Your task to perform on an android device: turn on the 12-hour format for clock Image 0: 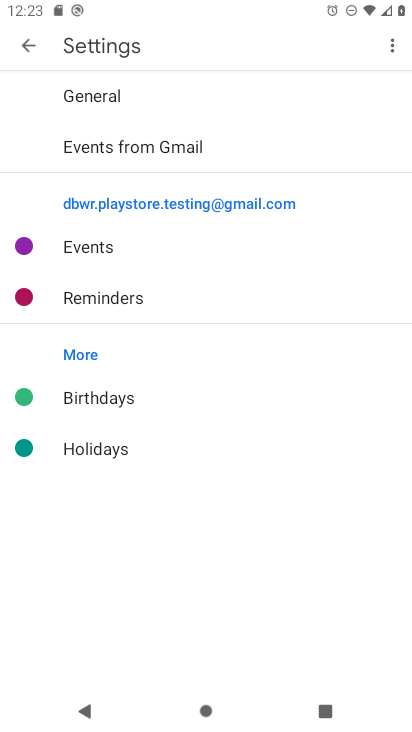
Step 0: press home button
Your task to perform on an android device: turn on the 12-hour format for clock Image 1: 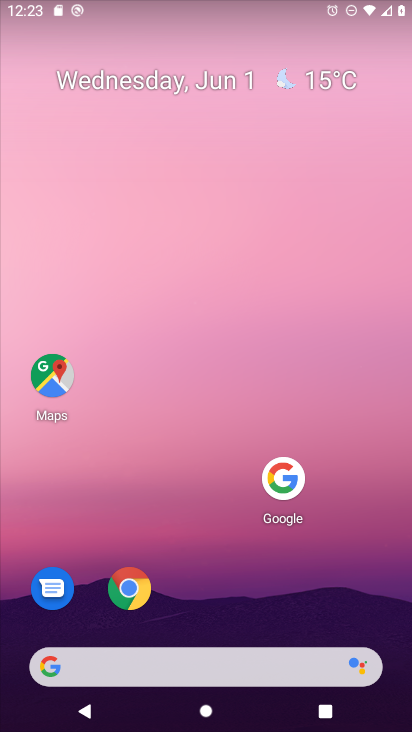
Step 1: drag from (153, 666) to (278, 175)
Your task to perform on an android device: turn on the 12-hour format for clock Image 2: 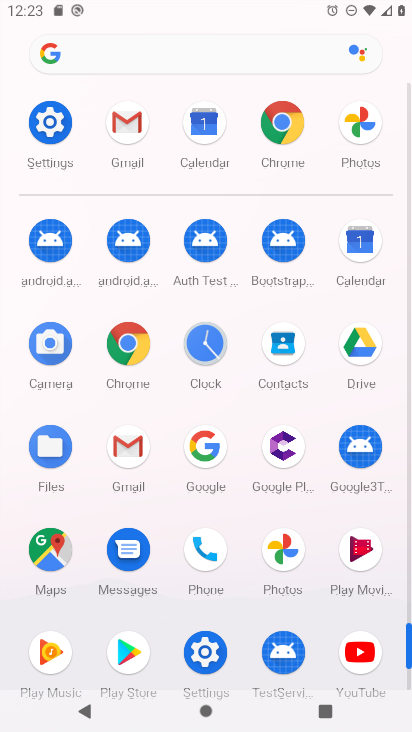
Step 2: click (204, 356)
Your task to perform on an android device: turn on the 12-hour format for clock Image 3: 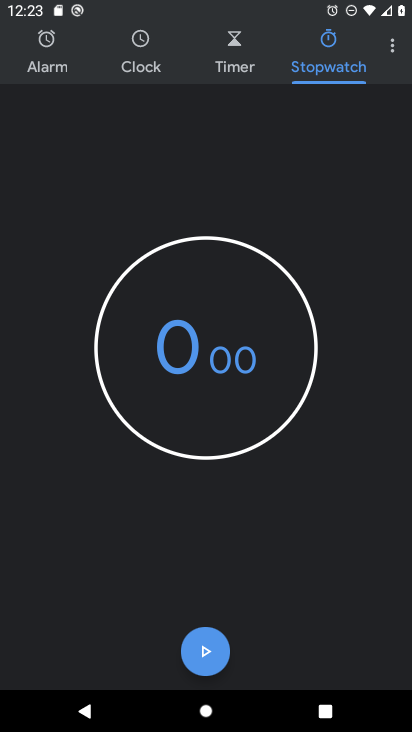
Step 3: click (395, 38)
Your task to perform on an android device: turn on the 12-hour format for clock Image 4: 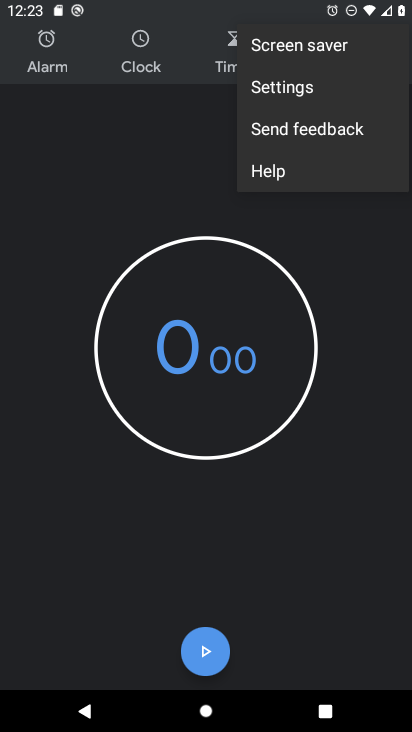
Step 4: click (313, 94)
Your task to perform on an android device: turn on the 12-hour format for clock Image 5: 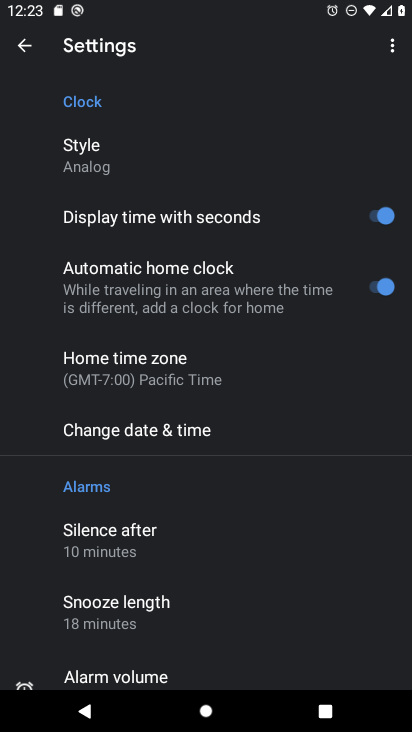
Step 5: click (195, 436)
Your task to perform on an android device: turn on the 12-hour format for clock Image 6: 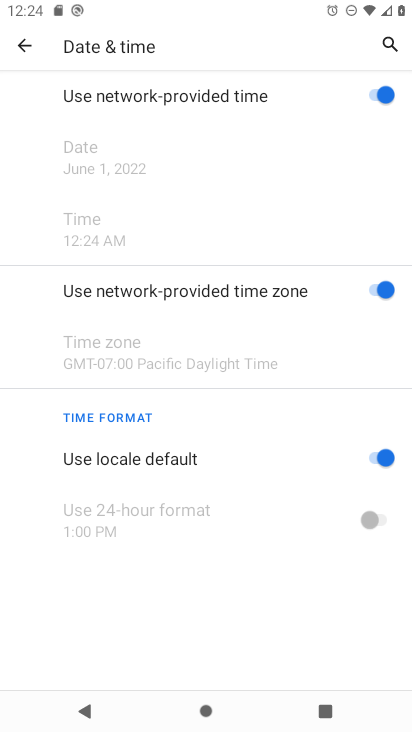
Step 6: task complete